Your task to perform on an android device: turn off improve location accuracy Image 0: 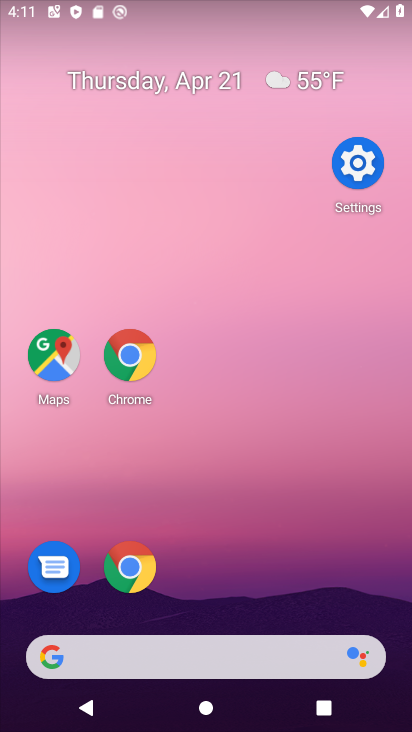
Step 0: drag from (267, 529) to (198, 50)
Your task to perform on an android device: turn off improve location accuracy Image 1: 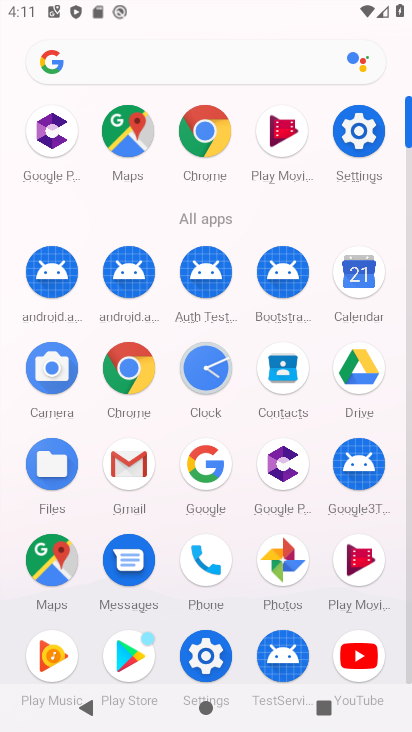
Step 1: click (356, 138)
Your task to perform on an android device: turn off improve location accuracy Image 2: 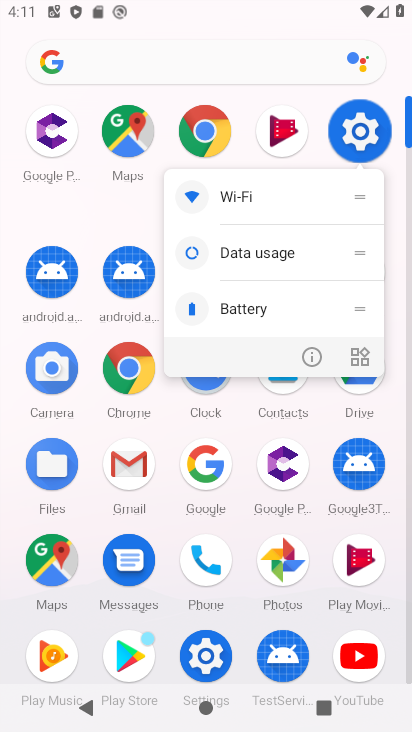
Step 2: click (356, 137)
Your task to perform on an android device: turn off improve location accuracy Image 3: 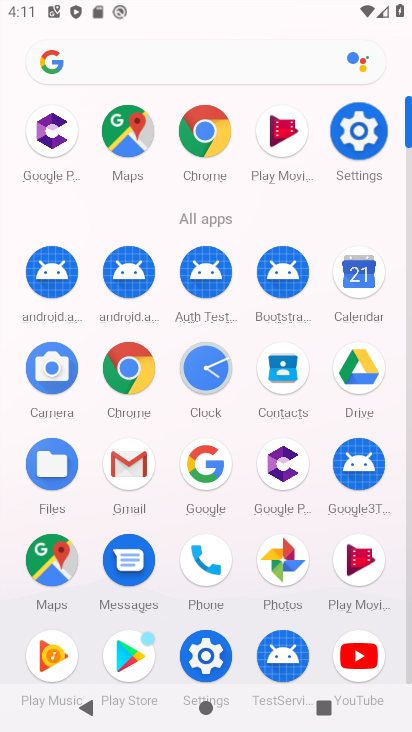
Step 3: click (356, 137)
Your task to perform on an android device: turn off improve location accuracy Image 4: 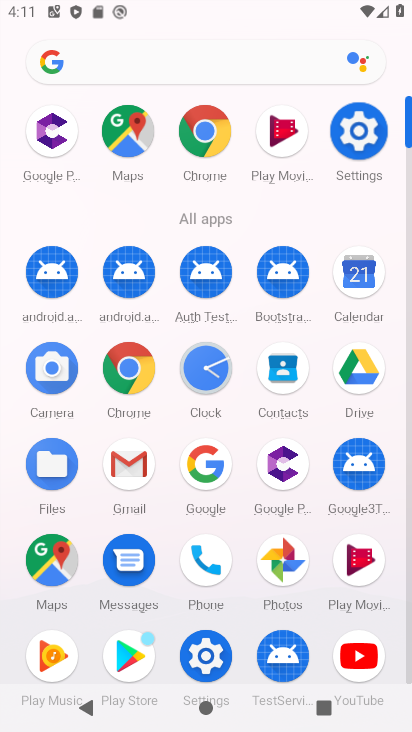
Step 4: click (356, 137)
Your task to perform on an android device: turn off improve location accuracy Image 5: 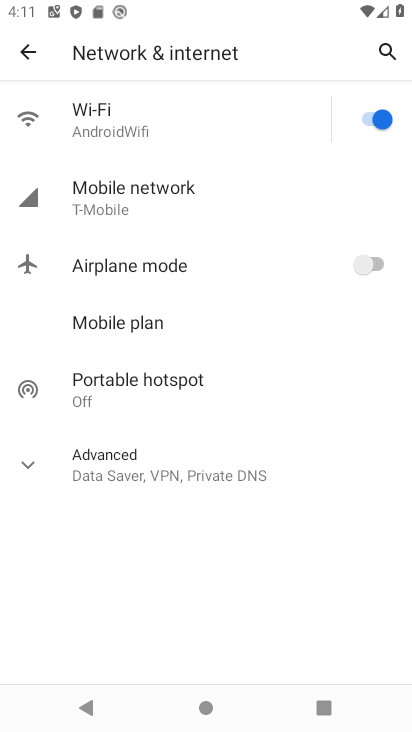
Step 5: click (20, 46)
Your task to perform on an android device: turn off improve location accuracy Image 6: 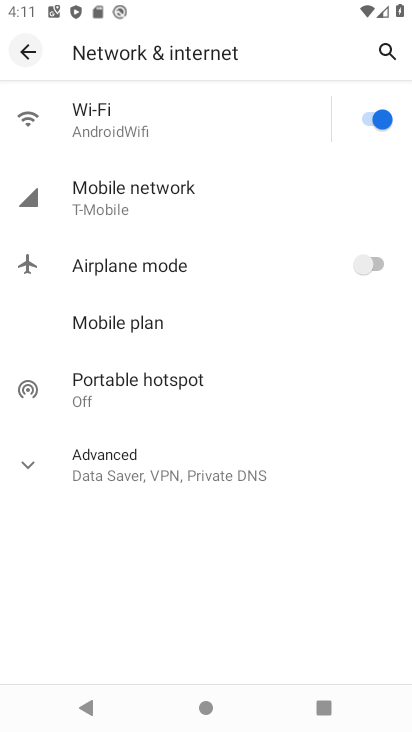
Step 6: click (21, 46)
Your task to perform on an android device: turn off improve location accuracy Image 7: 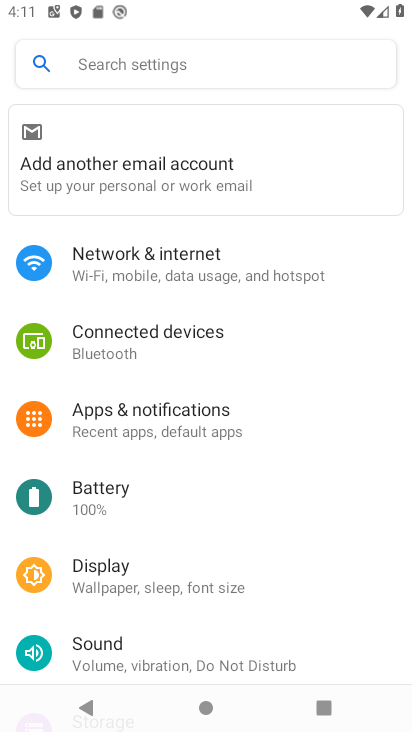
Step 7: click (189, 230)
Your task to perform on an android device: turn off improve location accuracy Image 8: 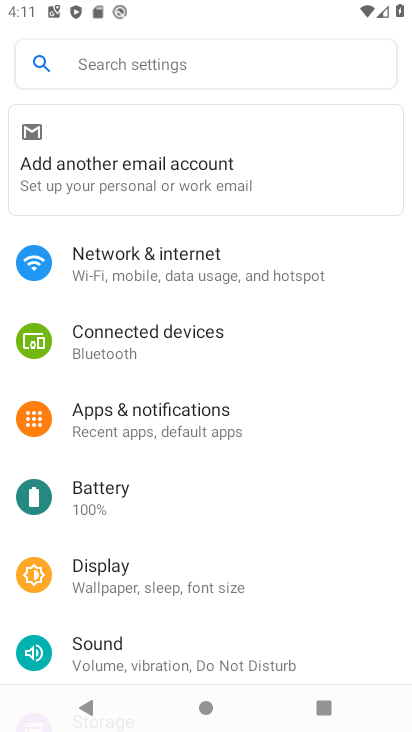
Step 8: drag from (208, 532) to (250, 214)
Your task to perform on an android device: turn off improve location accuracy Image 9: 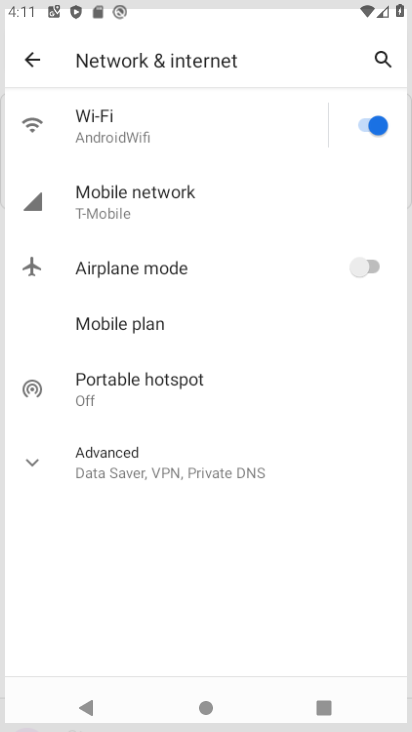
Step 9: drag from (245, 399) to (251, 166)
Your task to perform on an android device: turn off improve location accuracy Image 10: 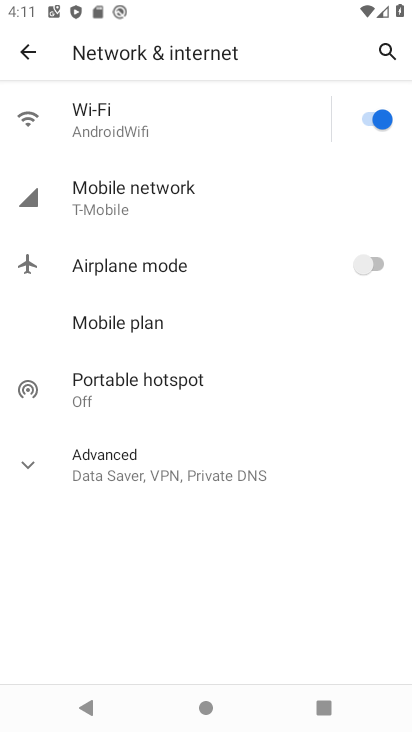
Step 10: click (22, 40)
Your task to perform on an android device: turn off improve location accuracy Image 11: 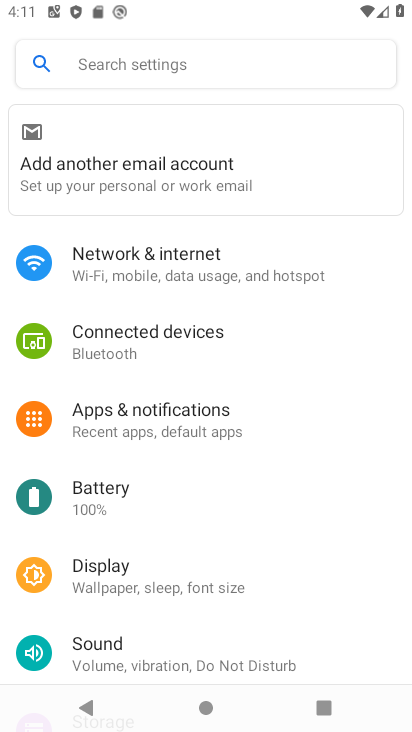
Step 11: drag from (184, 487) to (184, 253)
Your task to perform on an android device: turn off improve location accuracy Image 12: 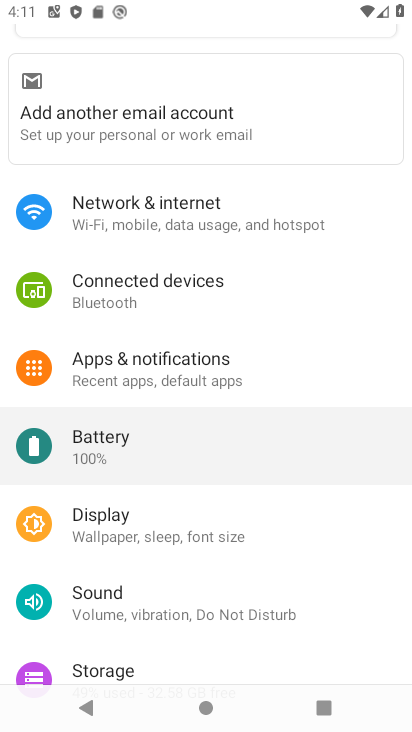
Step 12: drag from (217, 494) to (186, 194)
Your task to perform on an android device: turn off improve location accuracy Image 13: 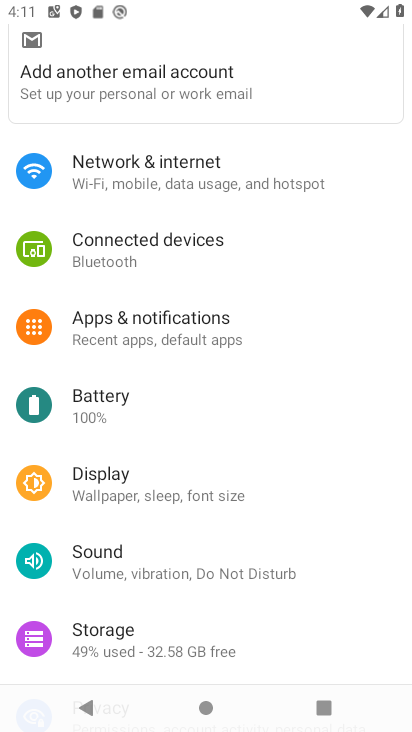
Step 13: drag from (151, 580) to (132, 296)
Your task to perform on an android device: turn off improve location accuracy Image 14: 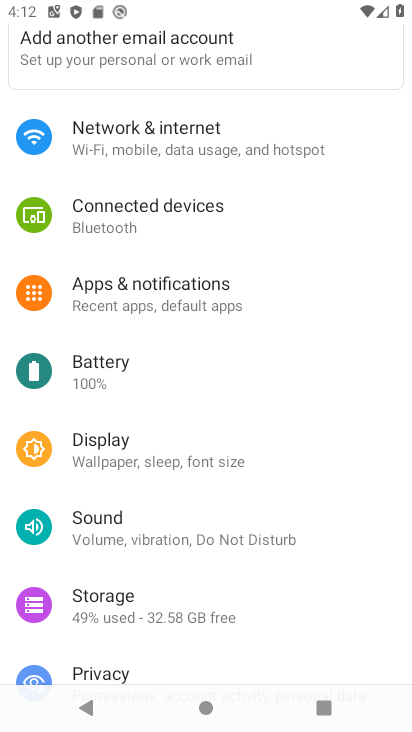
Step 14: drag from (206, 534) to (173, 167)
Your task to perform on an android device: turn off improve location accuracy Image 15: 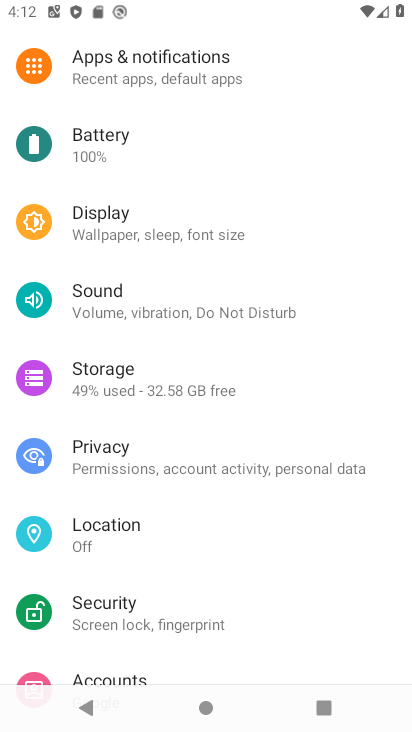
Step 15: click (106, 515)
Your task to perform on an android device: turn off improve location accuracy Image 16: 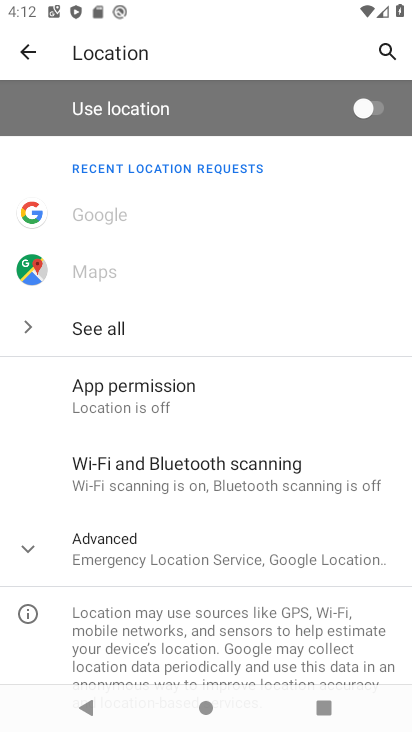
Step 16: click (128, 549)
Your task to perform on an android device: turn off improve location accuracy Image 17: 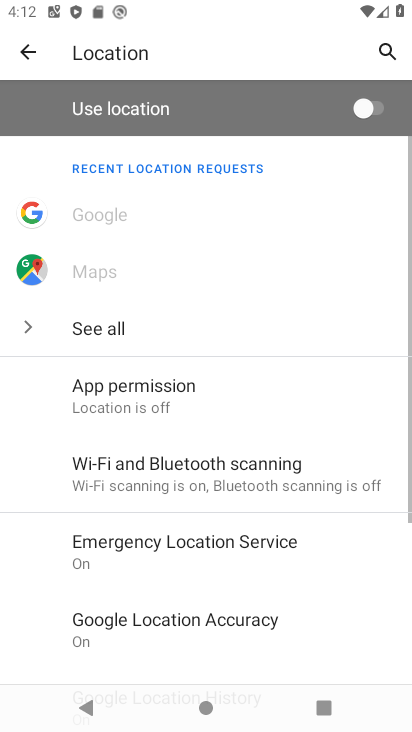
Step 17: drag from (208, 513) to (125, 215)
Your task to perform on an android device: turn off improve location accuracy Image 18: 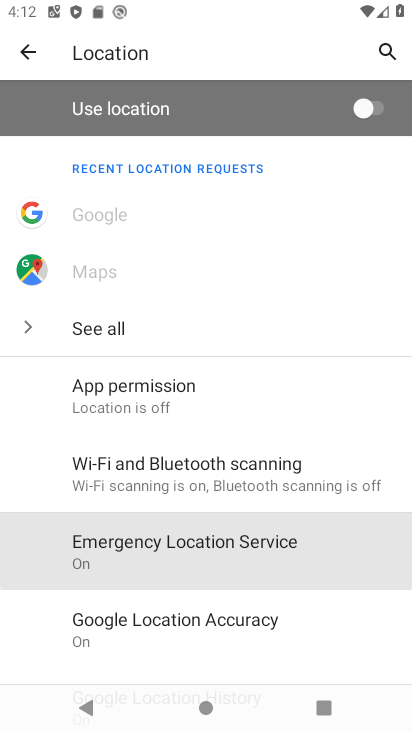
Step 18: drag from (200, 512) to (193, 199)
Your task to perform on an android device: turn off improve location accuracy Image 19: 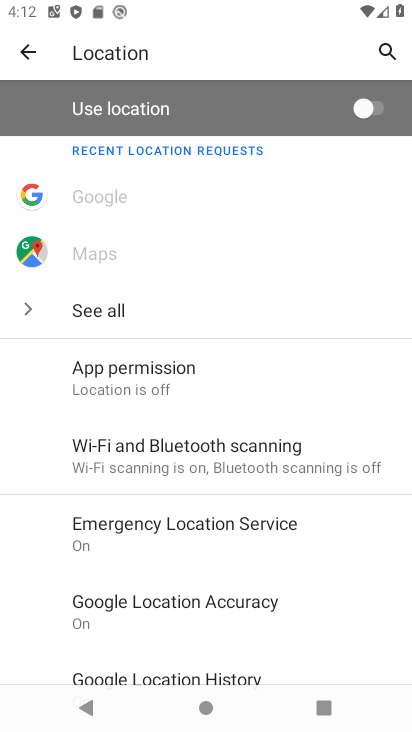
Step 19: click (159, 604)
Your task to perform on an android device: turn off improve location accuracy Image 20: 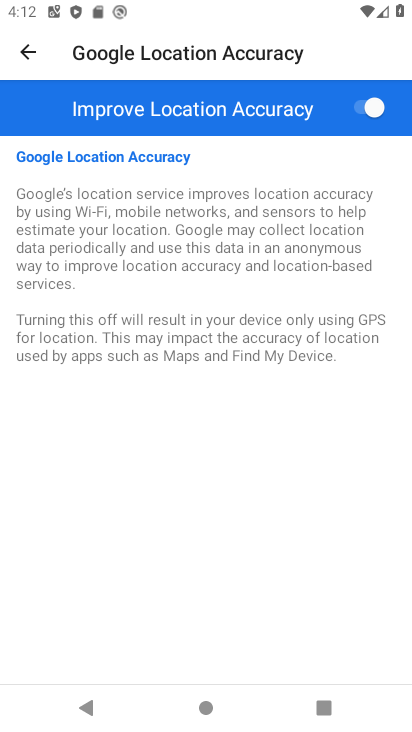
Step 20: click (374, 110)
Your task to perform on an android device: turn off improve location accuracy Image 21: 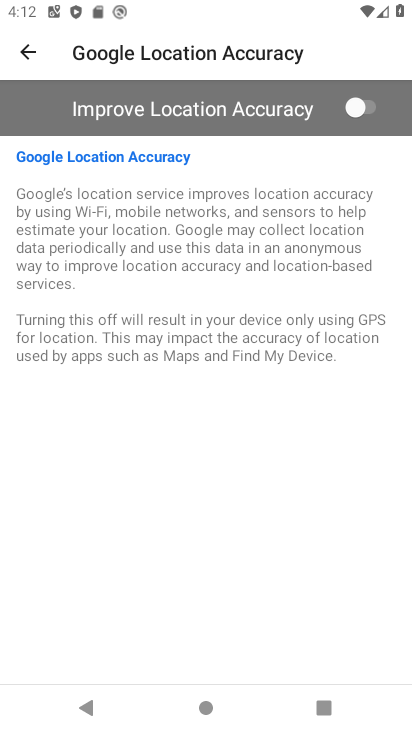
Step 21: task complete